Your task to perform on an android device: Open Google Image 0: 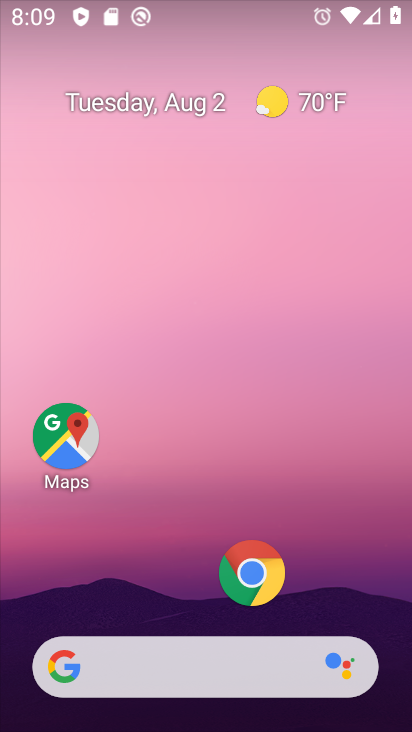
Step 0: drag from (181, 600) to (187, 3)
Your task to perform on an android device: Open Google Image 1: 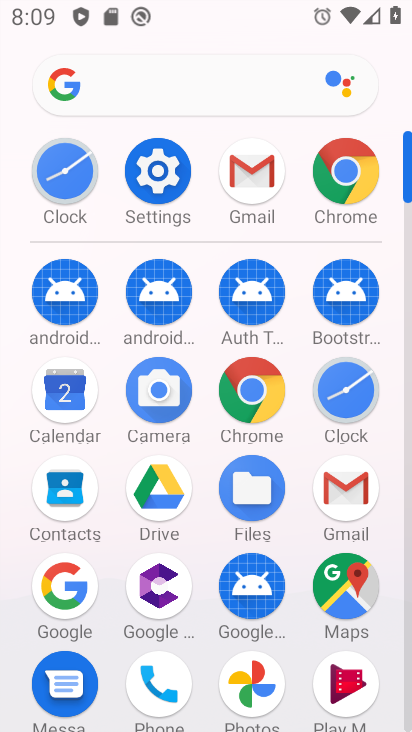
Step 1: click (61, 579)
Your task to perform on an android device: Open Google Image 2: 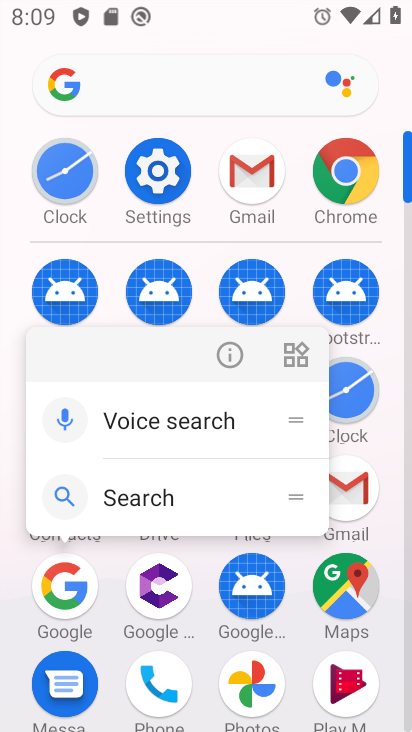
Step 2: click (61, 585)
Your task to perform on an android device: Open Google Image 3: 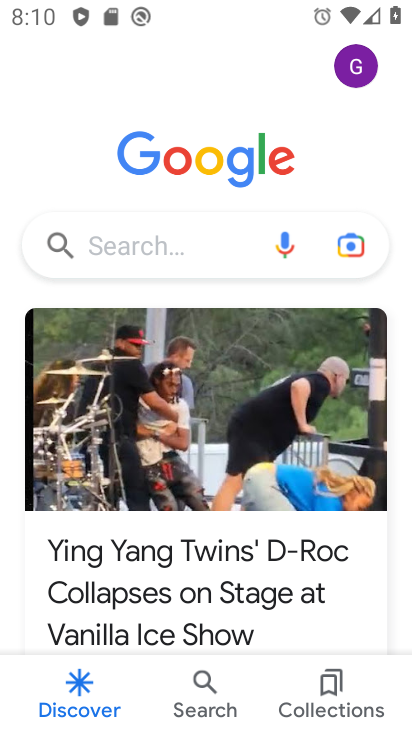
Step 3: task complete